Your task to perform on an android device: Set the phone to "Do not disturb". Image 0: 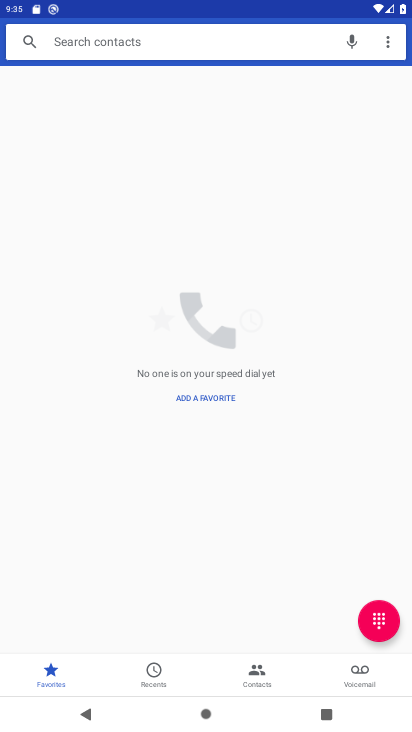
Step 0: press home button
Your task to perform on an android device: Set the phone to "Do not disturb". Image 1: 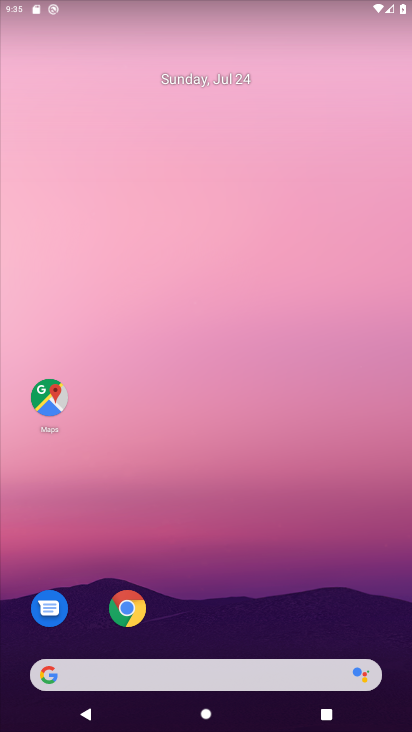
Step 1: drag from (260, 602) to (248, 7)
Your task to perform on an android device: Set the phone to "Do not disturb". Image 2: 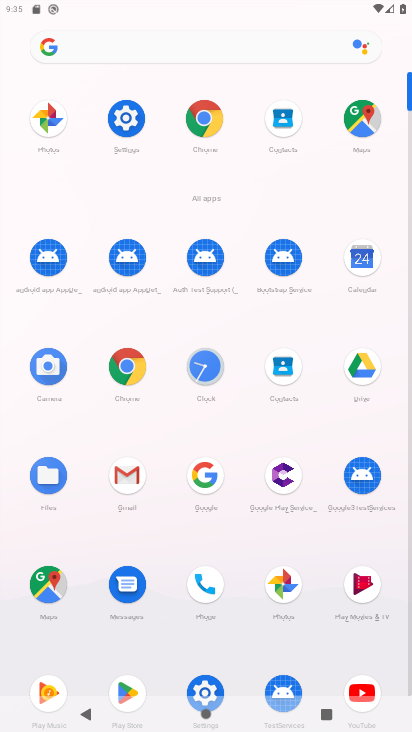
Step 2: click (130, 118)
Your task to perform on an android device: Set the phone to "Do not disturb". Image 3: 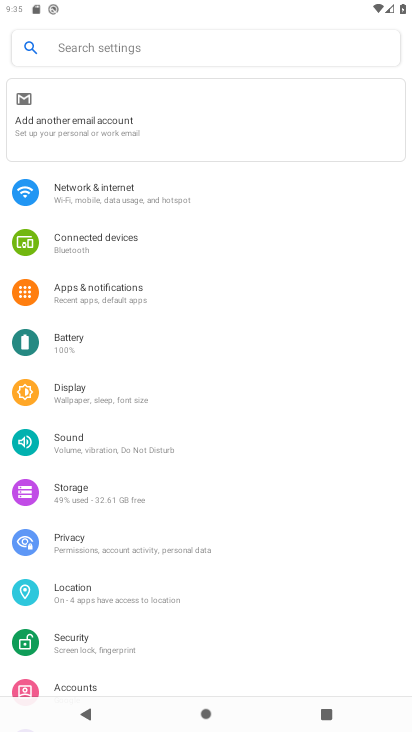
Step 3: click (118, 439)
Your task to perform on an android device: Set the phone to "Do not disturb". Image 4: 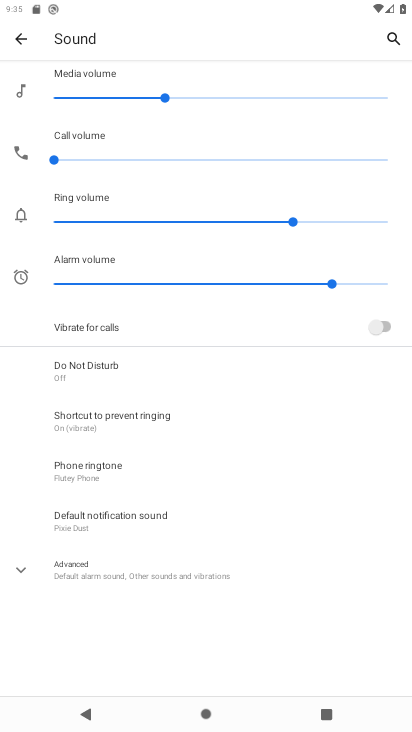
Step 4: click (98, 367)
Your task to perform on an android device: Set the phone to "Do not disturb". Image 5: 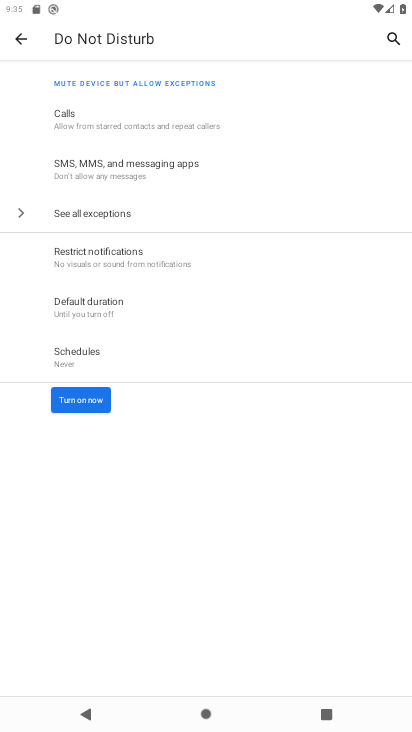
Step 5: click (63, 404)
Your task to perform on an android device: Set the phone to "Do not disturb". Image 6: 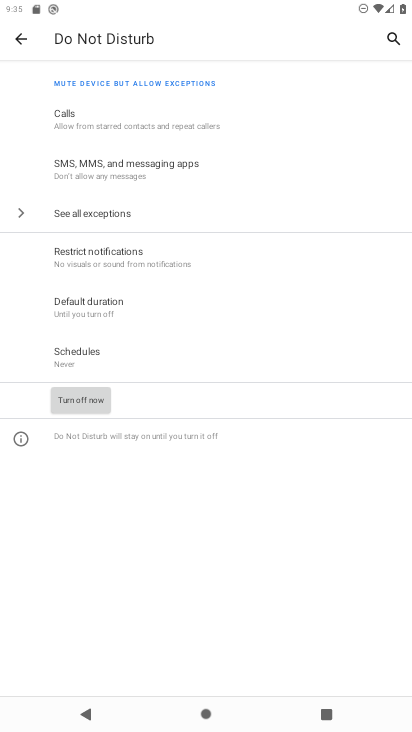
Step 6: task complete